Your task to perform on an android device: Open Chrome and go to settings Image 0: 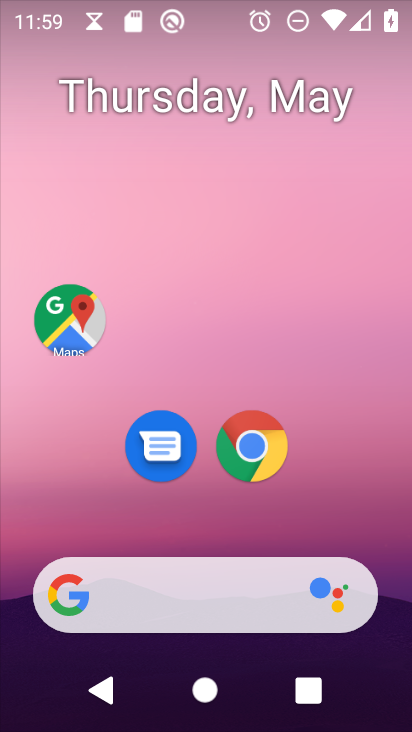
Step 0: drag from (351, 650) to (288, 390)
Your task to perform on an android device: Open Chrome and go to settings Image 1: 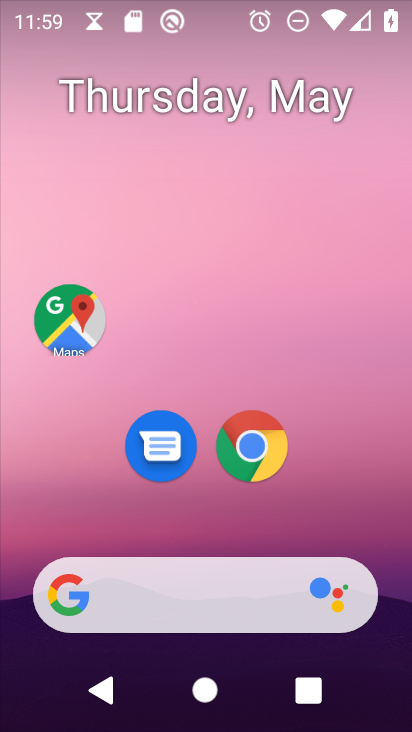
Step 1: drag from (259, 644) to (154, 271)
Your task to perform on an android device: Open Chrome and go to settings Image 2: 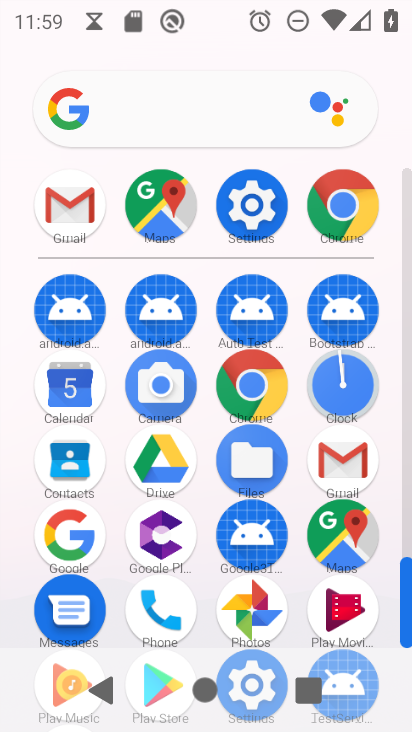
Step 2: click (350, 219)
Your task to perform on an android device: Open Chrome and go to settings Image 3: 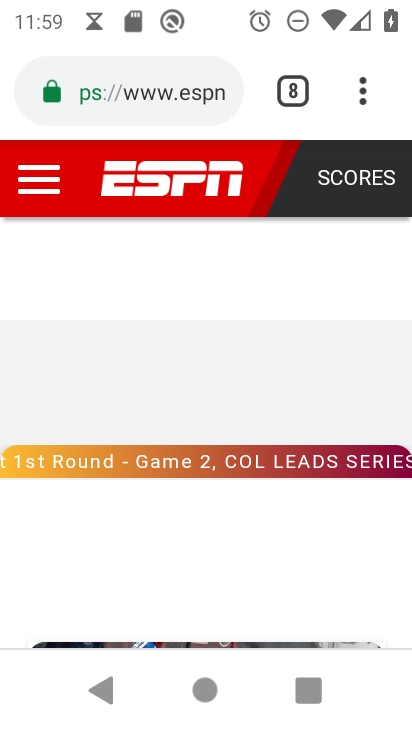
Step 3: click (370, 113)
Your task to perform on an android device: Open Chrome and go to settings Image 4: 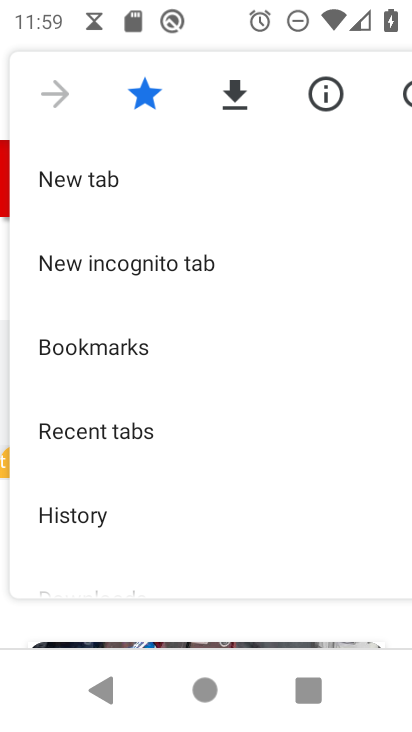
Step 4: drag from (105, 544) to (177, 226)
Your task to perform on an android device: Open Chrome and go to settings Image 5: 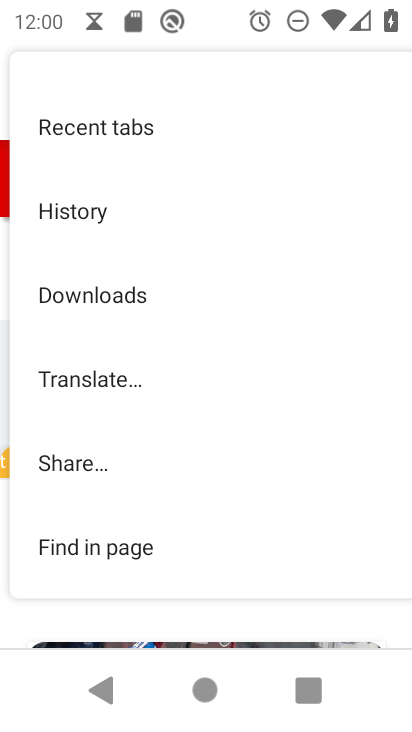
Step 5: drag from (209, 471) to (209, 321)
Your task to perform on an android device: Open Chrome and go to settings Image 6: 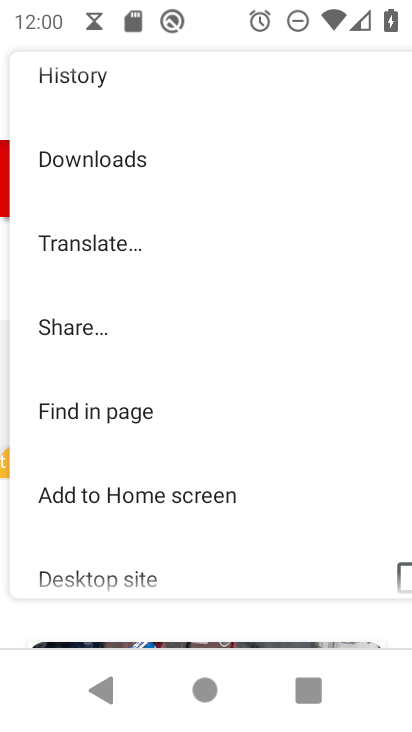
Step 6: drag from (175, 504) to (209, 337)
Your task to perform on an android device: Open Chrome and go to settings Image 7: 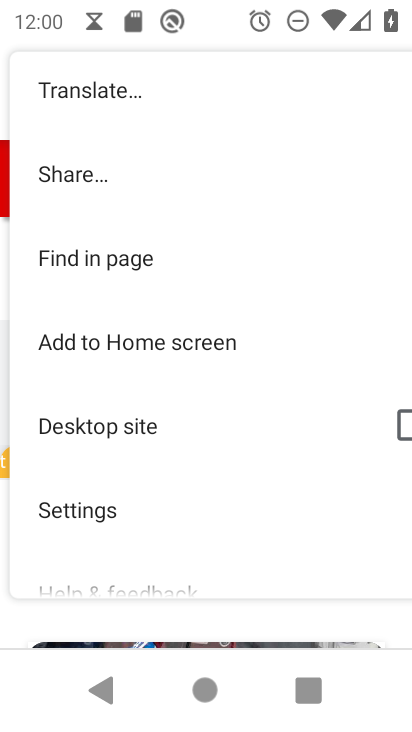
Step 7: click (136, 519)
Your task to perform on an android device: Open Chrome and go to settings Image 8: 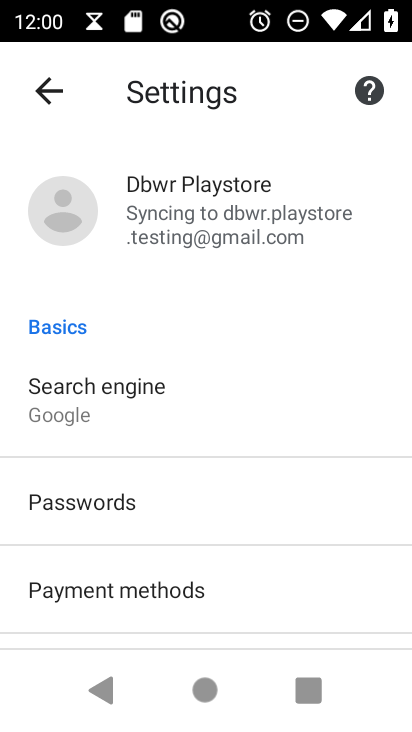
Step 8: task complete